Your task to perform on an android device: Open network settings Image 0: 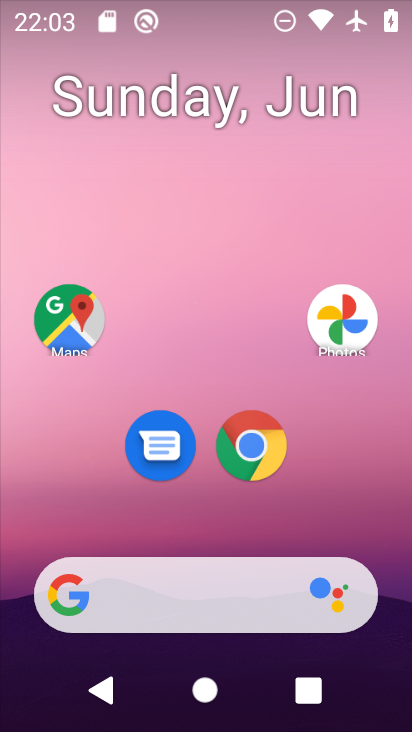
Step 0: drag from (363, 521) to (302, 107)
Your task to perform on an android device: Open network settings Image 1: 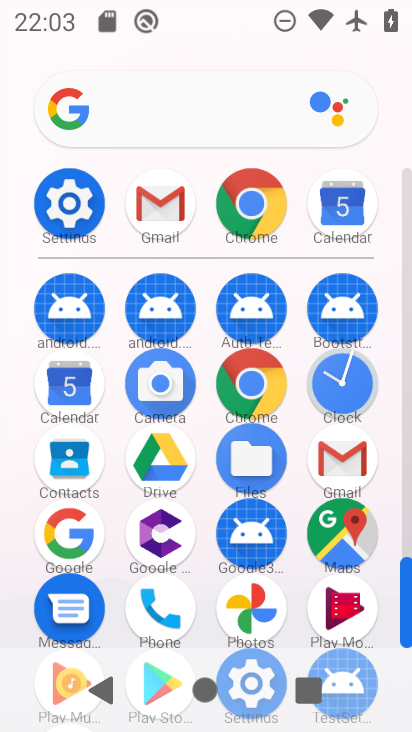
Step 1: click (78, 197)
Your task to perform on an android device: Open network settings Image 2: 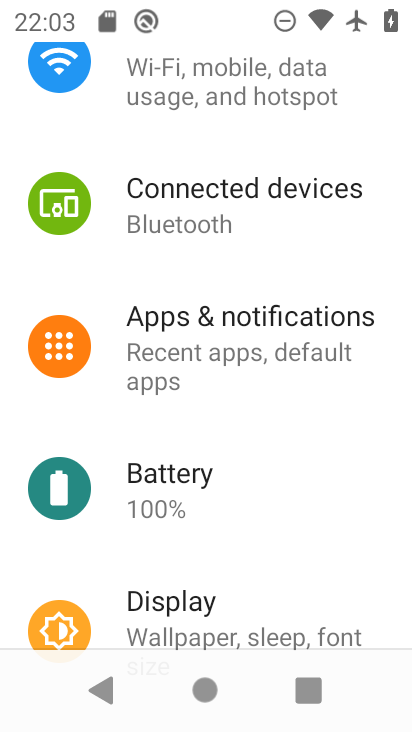
Step 2: drag from (357, 570) to (359, 726)
Your task to perform on an android device: Open network settings Image 3: 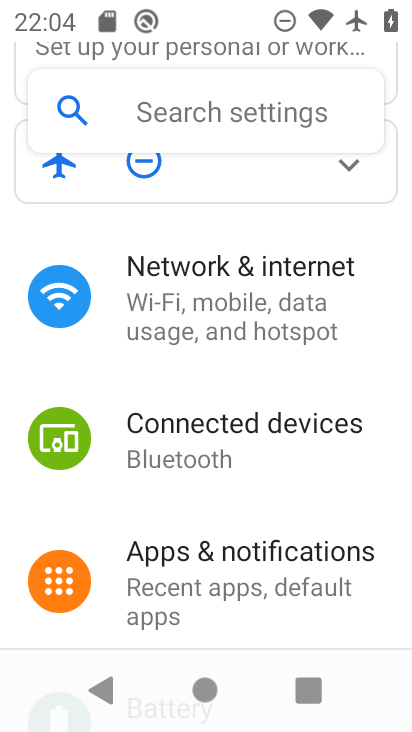
Step 3: click (181, 317)
Your task to perform on an android device: Open network settings Image 4: 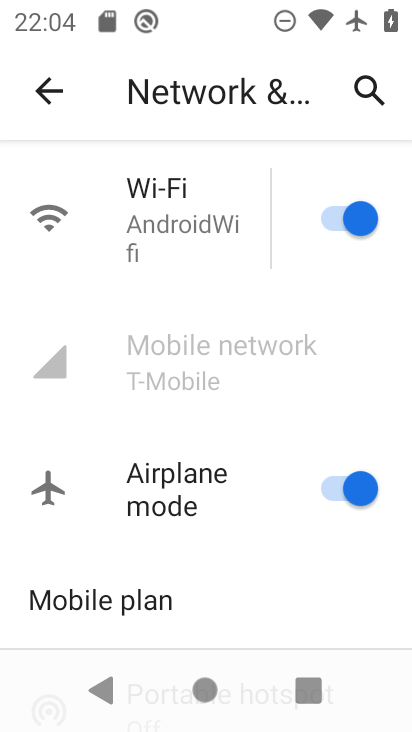
Step 4: task complete